Your task to perform on an android device: Toggle the flashlight Image 0: 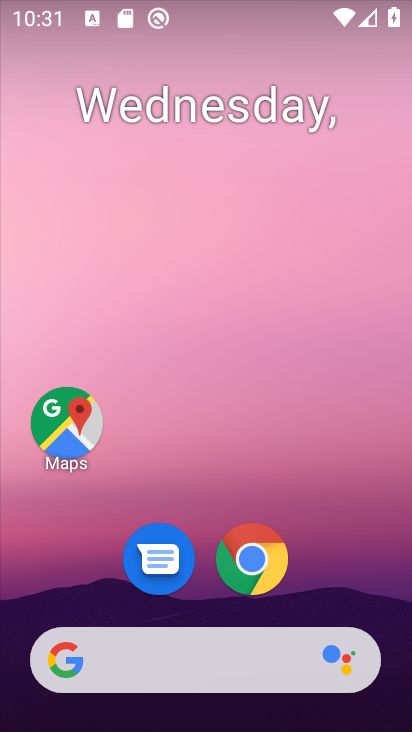
Step 0: drag from (244, 642) to (277, 170)
Your task to perform on an android device: Toggle the flashlight Image 1: 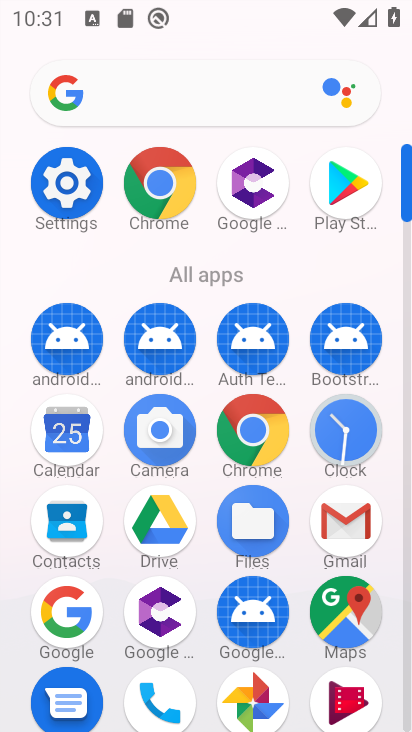
Step 1: task complete